Your task to perform on an android device: empty trash in the gmail app Image 0: 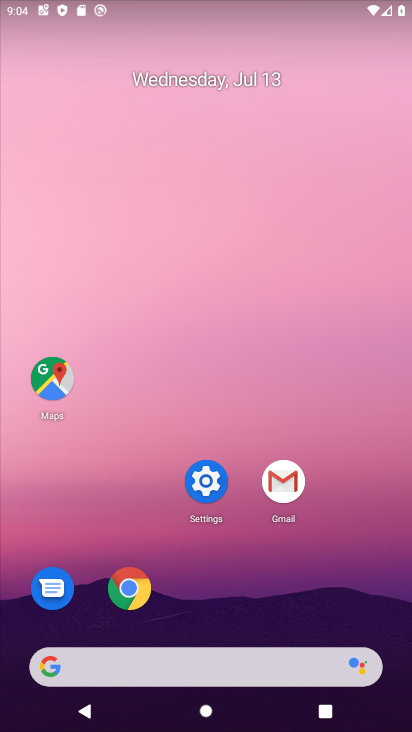
Step 0: click (278, 474)
Your task to perform on an android device: empty trash in the gmail app Image 1: 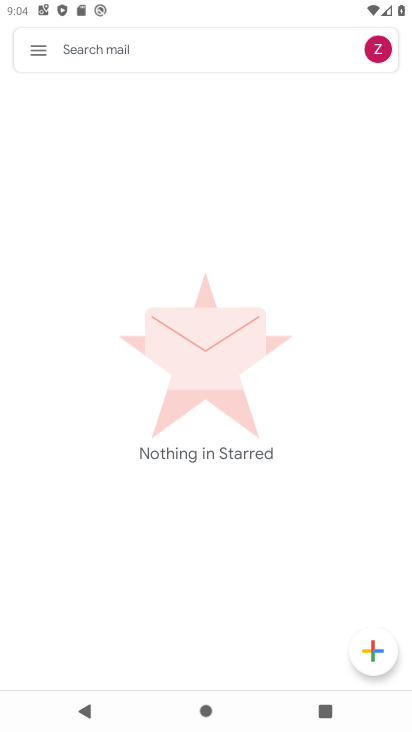
Step 1: click (35, 58)
Your task to perform on an android device: empty trash in the gmail app Image 2: 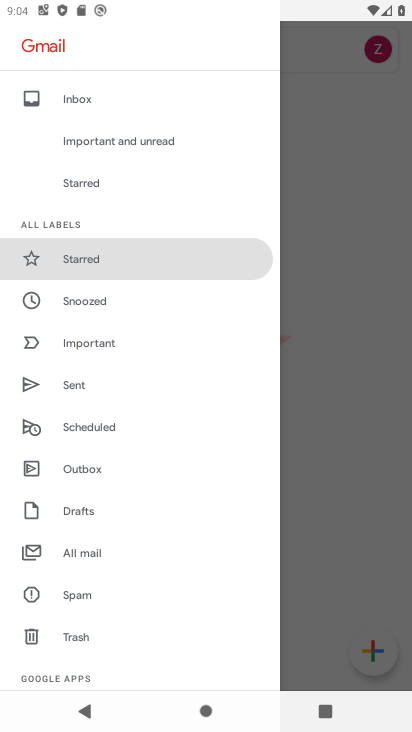
Step 2: click (78, 635)
Your task to perform on an android device: empty trash in the gmail app Image 3: 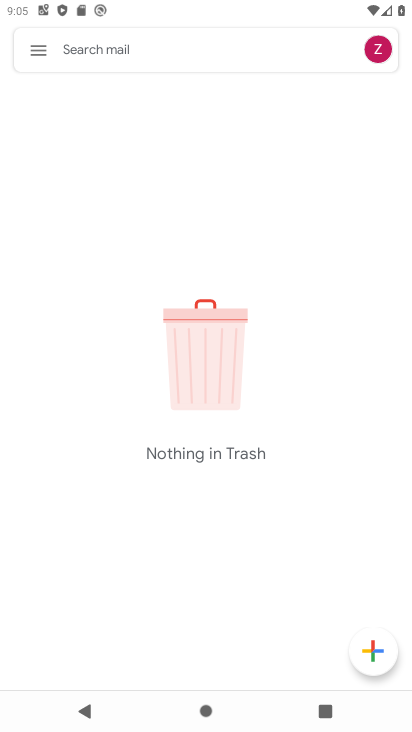
Step 3: task complete